Your task to perform on an android device: Open location settings Image 0: 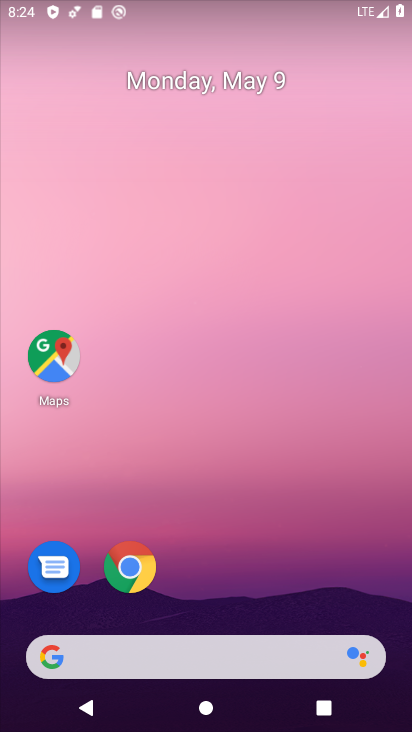
Step 0: drag from (304, 578) to (244, 56)
Your task to perform on an android device: Open location settings Image 1: 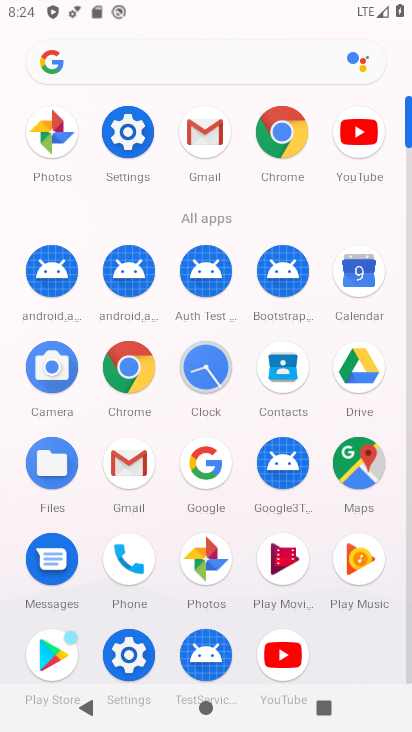
Step 1: click (122, 642)
Your task to perform on an android device: Open location settings Image 2: 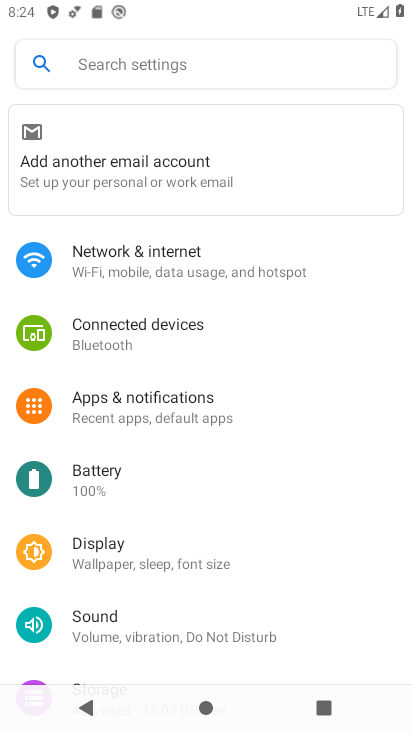
Step 2: drag from (179, 586) to (176, 292)
Your task to perform on an android device: Open location settings Image 3: 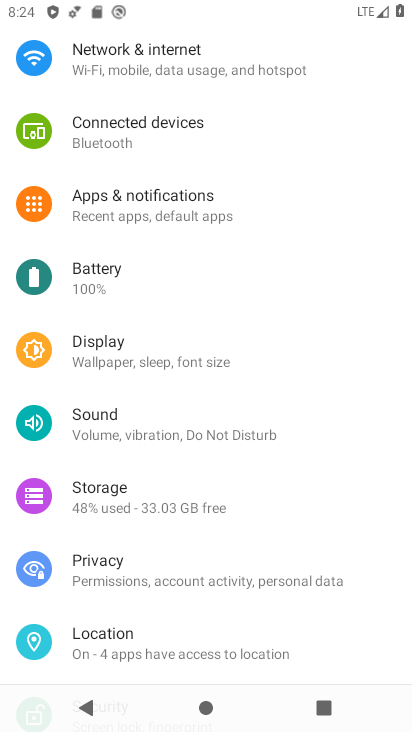
Step 3: click (141, 631)
Your task to perform on an android device: Open location settings Image 4: 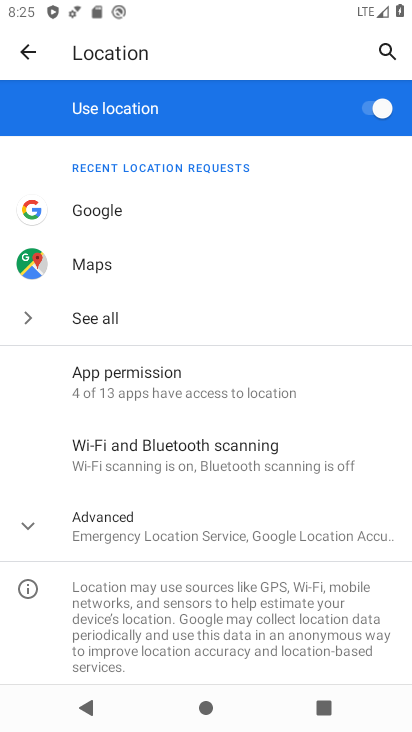
Step 4: click (118, 534)
Your task to perform on an android device: Open location settings Image 5: 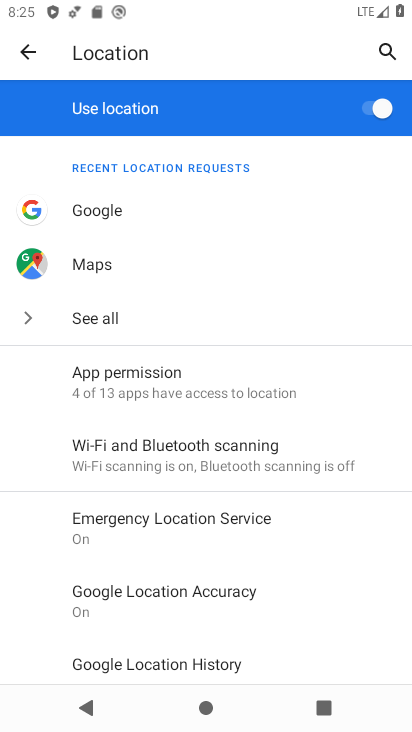
Step 5: task complete